Your task to perform on an android device: Check the settings for the Twitter app Image 0: 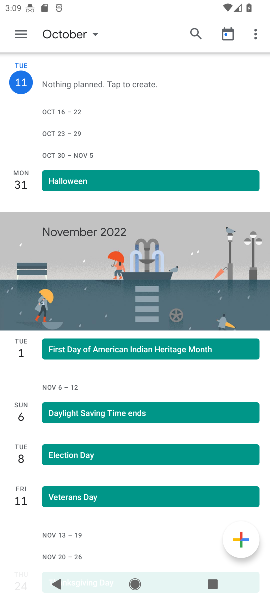
Step 0: press home button
Your task to perform on an android device: Check the settings for the Twitter app Image 1: 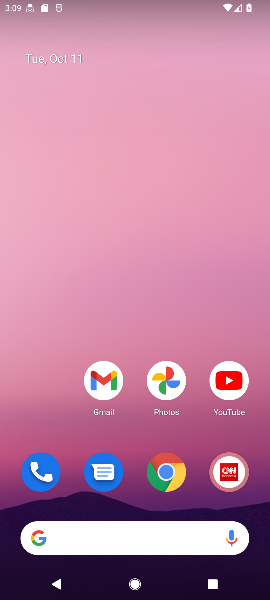
Step 1: drag from (141, 500) to (132, 58)
Your task to perform on an android device: Check the settings for the Twitter app Image 2: 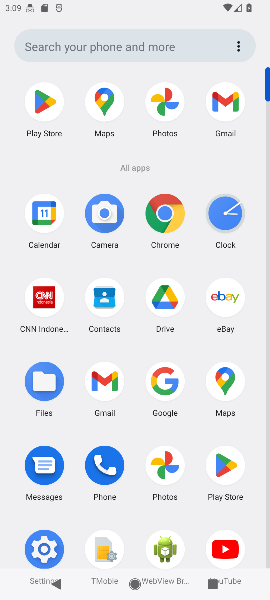
Step 2: click (55, 90)
Your task to perform on an android device: Check the settings for the Twitter app Image 3: 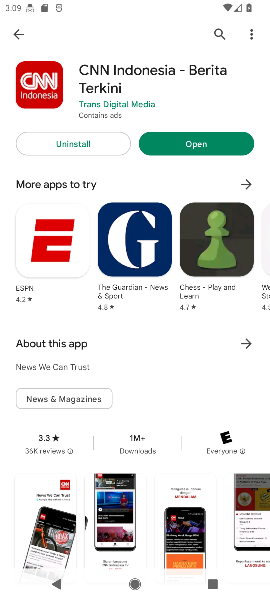
Step 3: click (214, 36)
Your task to perform on an android device: Check the settings for the Twitter app Image 4: 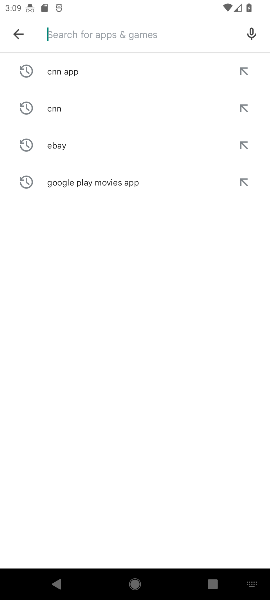
Step 4: type "twitter"
Your task to perform on an android device: Check the settings for the Twitter app Image 5: 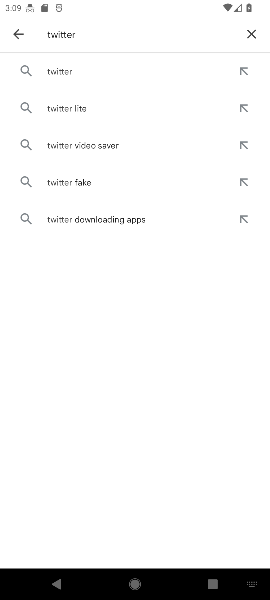
Step 5: click (174, 63)
Your task to perform on an android device: Check the settings for the Twitter app Image 6: 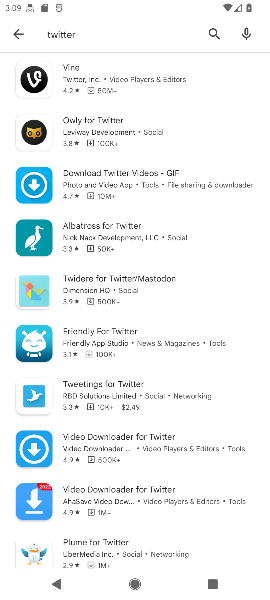
Step 6: click (208, 33)
Your task to perform on an android device: Check the settings for the Twitter app Image 7: 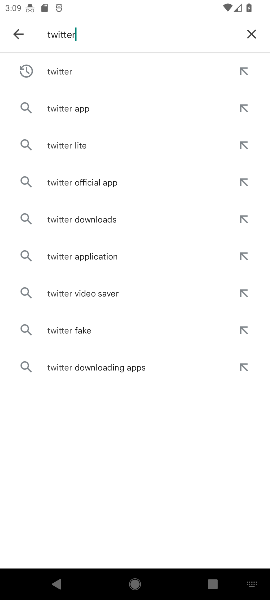
Step 7: click (80, 123)
Your task to perform on an android device: Check the settings for the Twitter app Image 8: 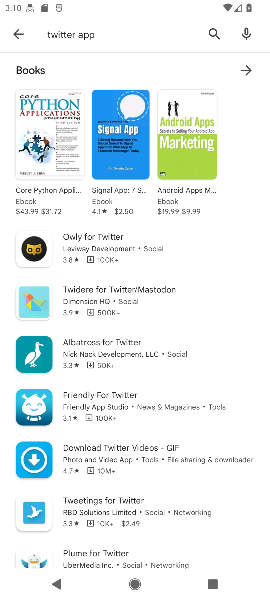
Step 8: drag from (121, 509) to (102, 76)
Your task to perform on an android device: Check the settings for the Twitter app Image 9: 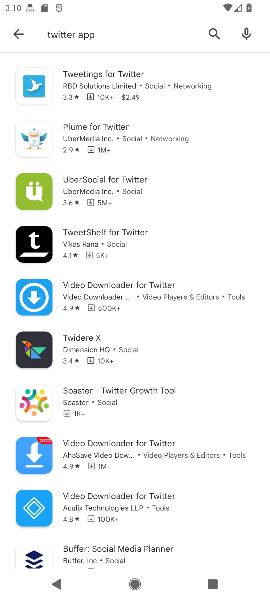
Step 9: drag from (157, 495) to (167, 88)
Your task to perform on an android device: Check the settings for the Twitter app Image 10: 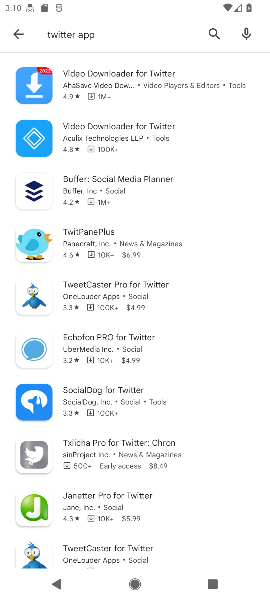
Step 10: drag from (133, 487) to (119, 178)
Your task to perform on an android device: Check the settings for the Twitter app Image 11: 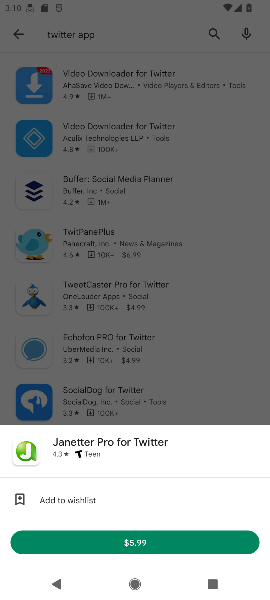
Step 11: click (115, 323)
Your task to perform on an android device: Check the settings for the Twitter app Image 12: 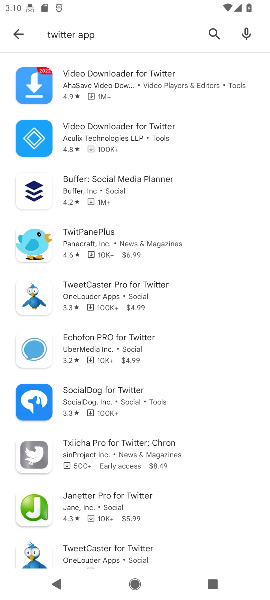
Step 12: click (11, 30)
Your task to perform on an android device: Check the settings for the Twitter app Image 13: 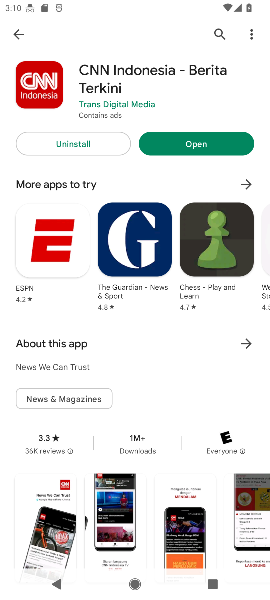
Step 13: click (11, 30)
Your task to perform on an android device: Check the settings for the Twitter app Image 14: 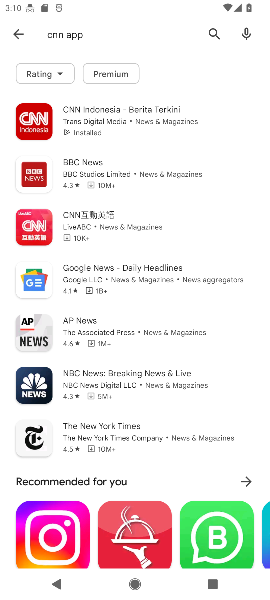
Step 14: click (219, 38)
Your task to perform on an android device: Check the settings for the Twitter app Image 15: 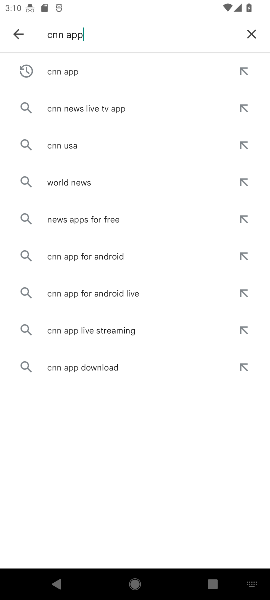
Step 15: click (254, 35)
Your task to perform on an android device: Check the settings for the Twitter app Image 16: 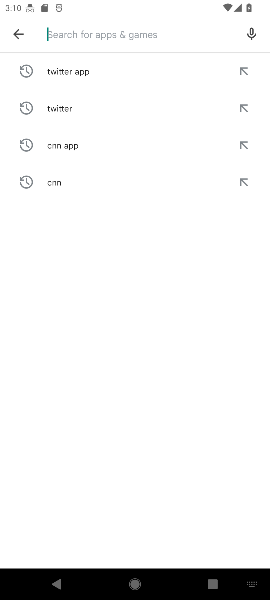
Step 16: type "twittwer"
Your task to perform on an android device: Check the settings for the Twitter app Image 17: 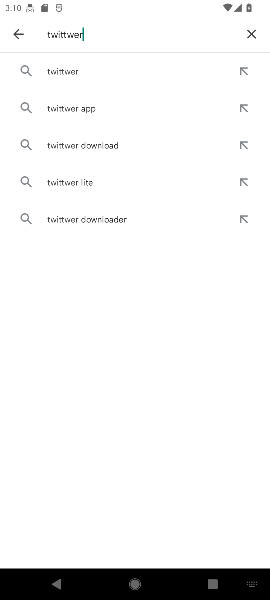
Step 17: click (95, 101)
Your task to perform on an android device: Check the settings for the Twitter app Image 18: 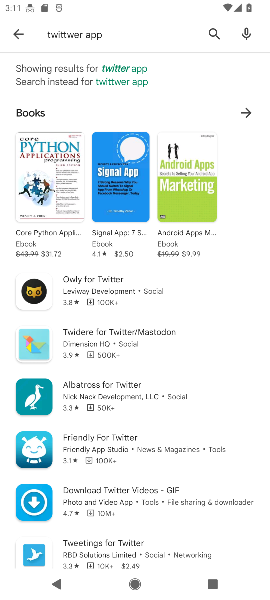
Step 18: click (122, 69)
Your task to perform on an android device: Check the settings for the Twitter app Image 19: 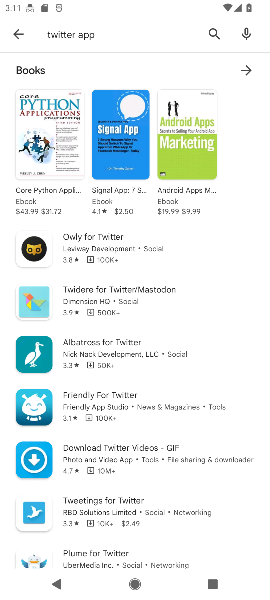
Step 19: task complete